Your task to perform on an android device: turn off translation in the chrome app Image 0: 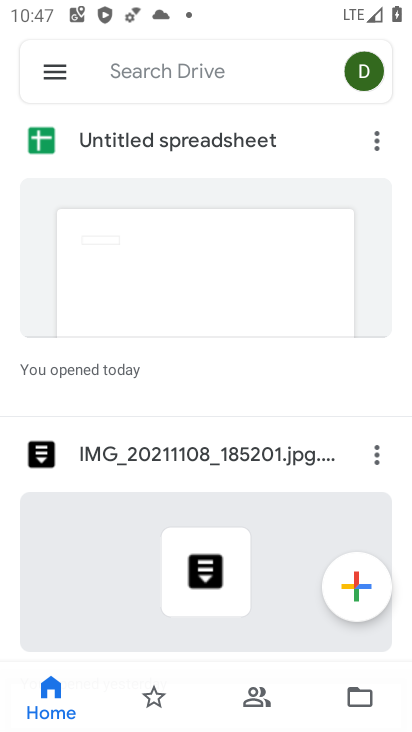
Step 0: press home button
Your task to perform on an android device: turn off translation in the chrome app Image 1: 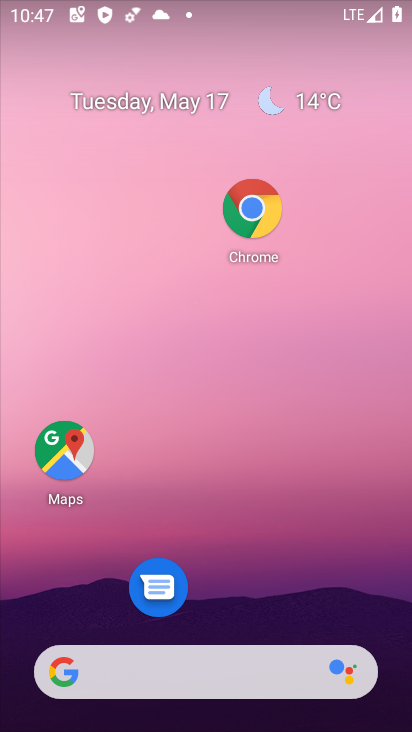
Step 1: click (242, 216)
Your task to perform on an android device: turn off translation in the chrome app Image 2: 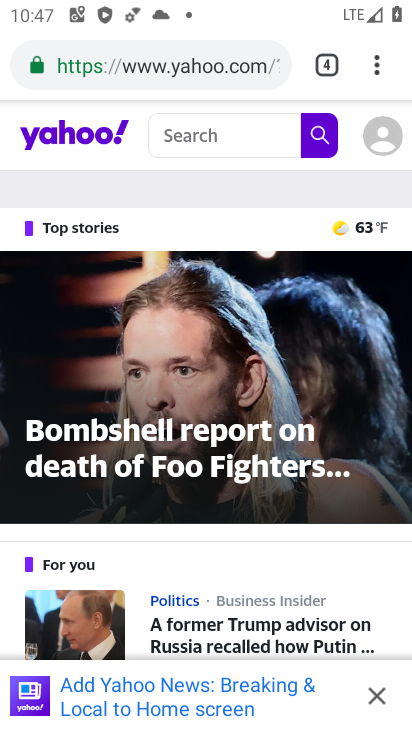
Step 2: click (381, 59)
Your task to perform on an android device: turn off translation in the chrome app Image 3: 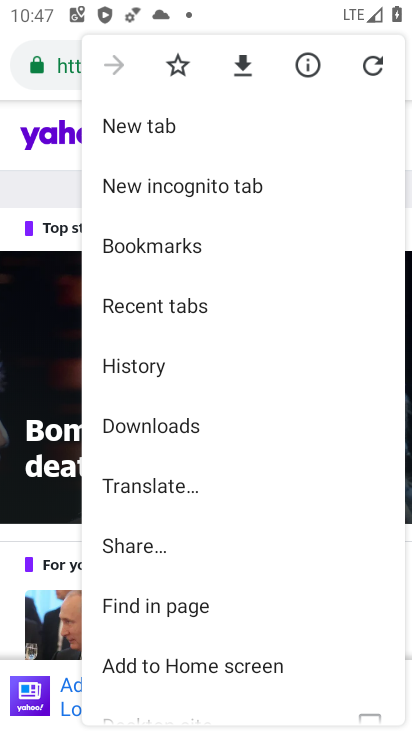
Step 3: drag from (280, 644) to (283, 321)
Your task to perform on an android device: turn off translation in the chrome app Image 4: 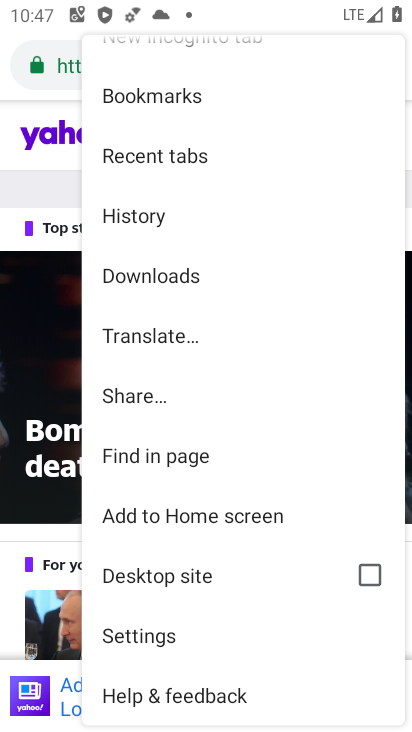
Step 4: click (185, 633)
Your task to perform on an android device: turn off translation in the chrome app Image 5: 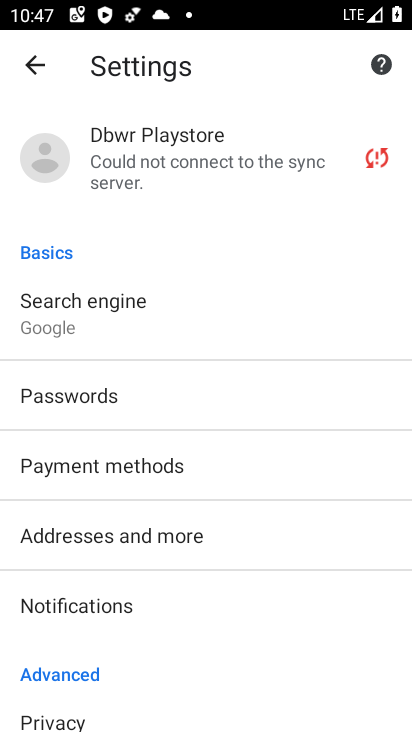
Step 5: drag from (207, 666) to (242, 259)
Your task to perform on an android device: turn off translation in the chrome app Image 6: 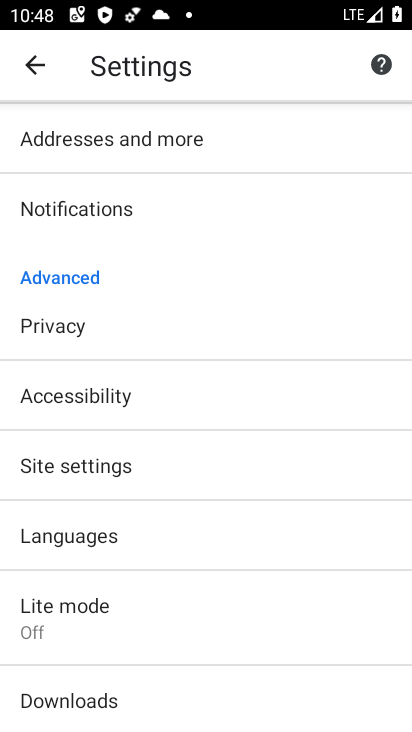
Step 6: click (95, 544)
Your task to perform on an android device: turn off translation in the chrome app Image 7: 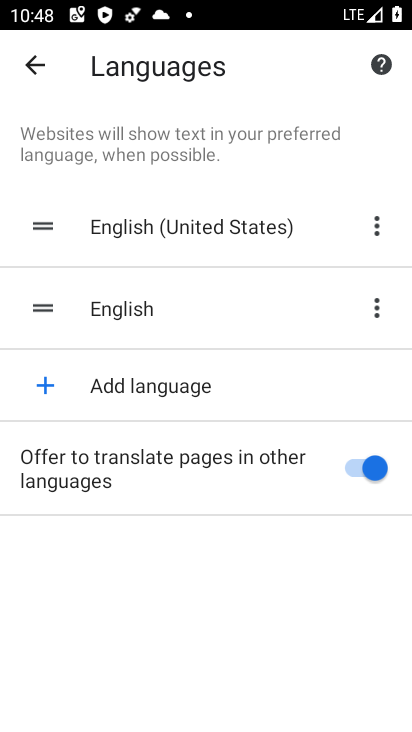
Step 7: click (359, 464)
Your task to perform on an android device: turn off translation in the chrome app Image 8: 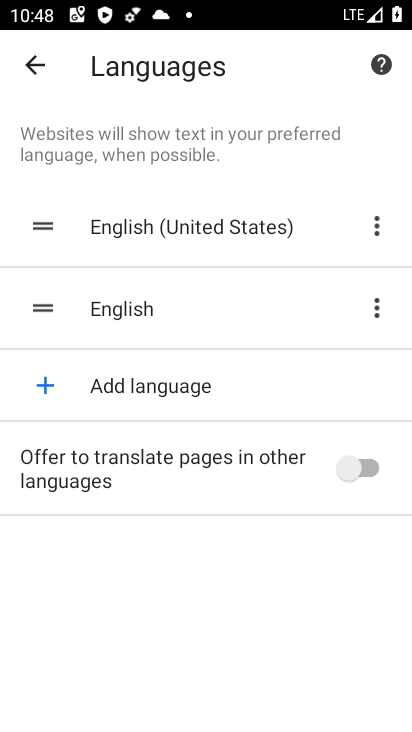
Step 8: task complete